Your task to perform on an android device: change timer sound Image 0: 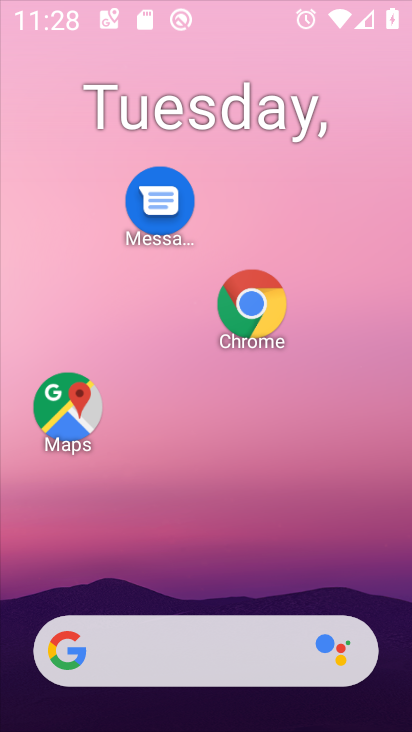
Step 0: drag from (309, 241) to (333, 197)
Your task to perform on an android device: change timer sound Image 1: 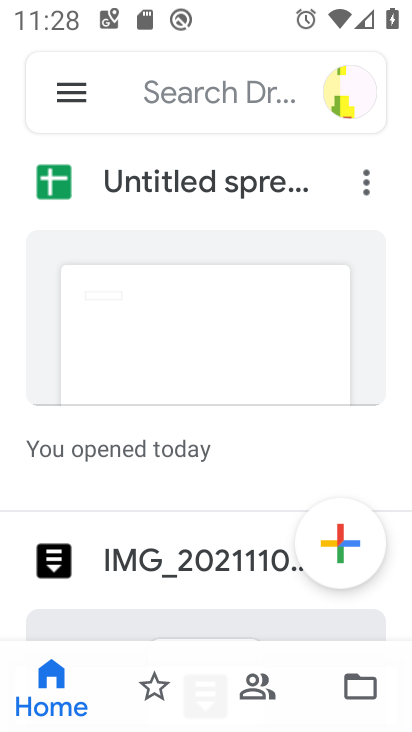
Step 1: press home button
Your task to perform on an android device: change timer sound Image 2: 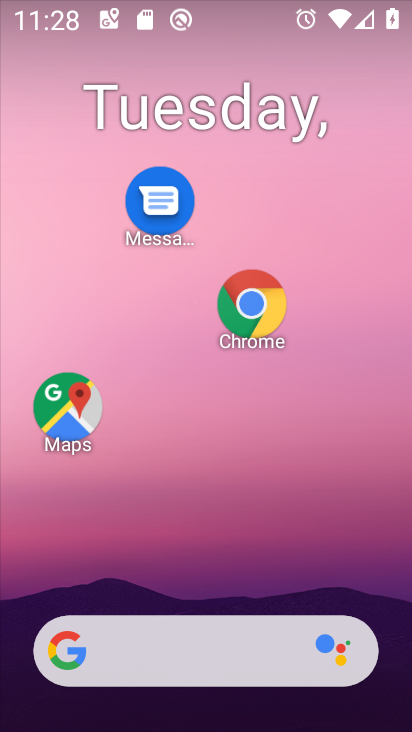
Step 2: drag from (261, 538) to (351, 191)
Your task to perform on an android device: change timer sound Image 3: 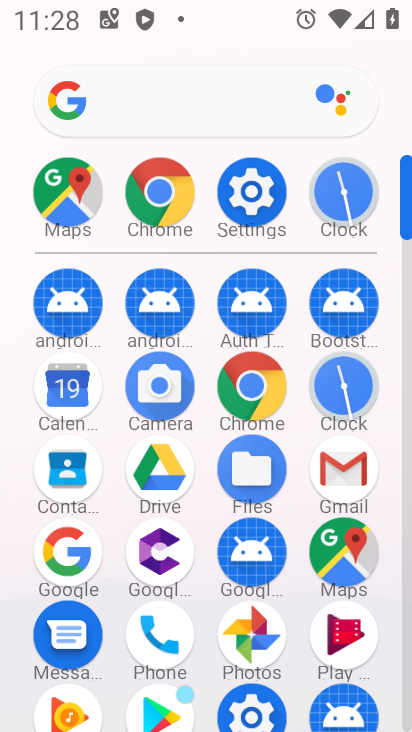
Step 3: click (344, 368)
Your task to perform on an android device: change timer sound Image 4: 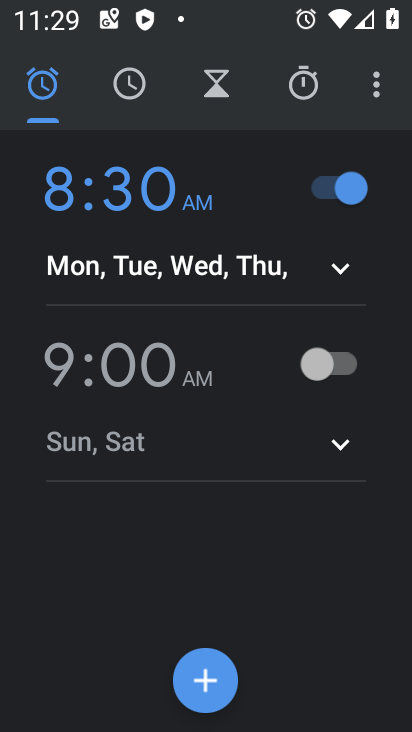
Step 4: click (385, 85)
Your task to perform on an android device: change timer sound Image 5: 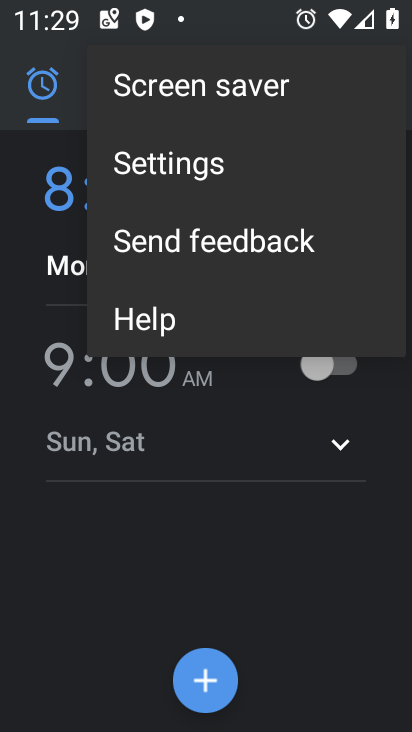
Step 5: click (259, 160)
Your task to perform on an android device: change timer sound Image 6: 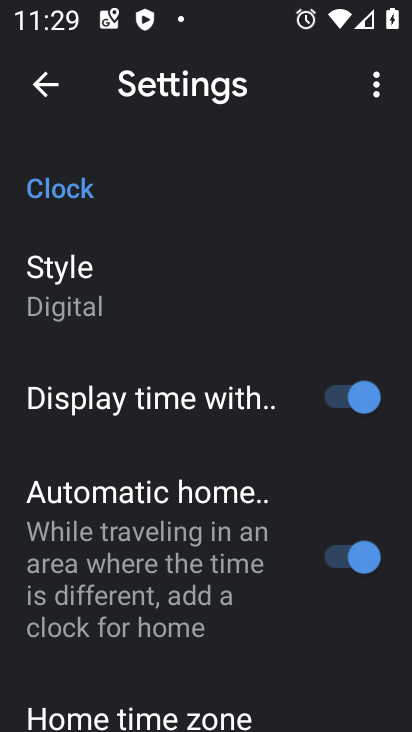
Step 6: drag from (171, 557) to (239, 127)
Your task to perform on an android device: change timer sound Image 7: 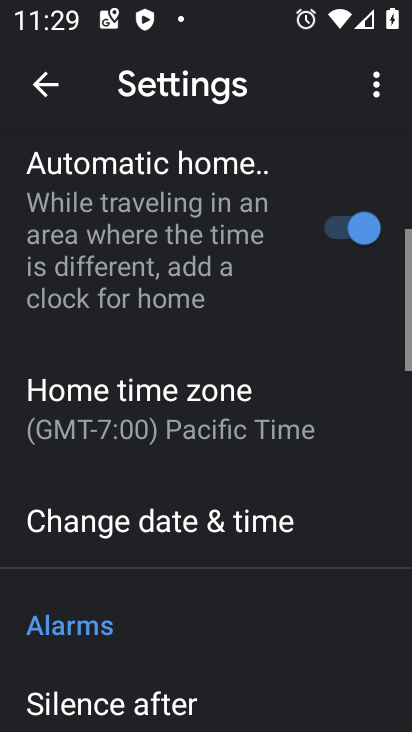
Step 7: drag from (148, 651) to (245, 182)
Your task to perform on an android device: change timer sound Image 8: 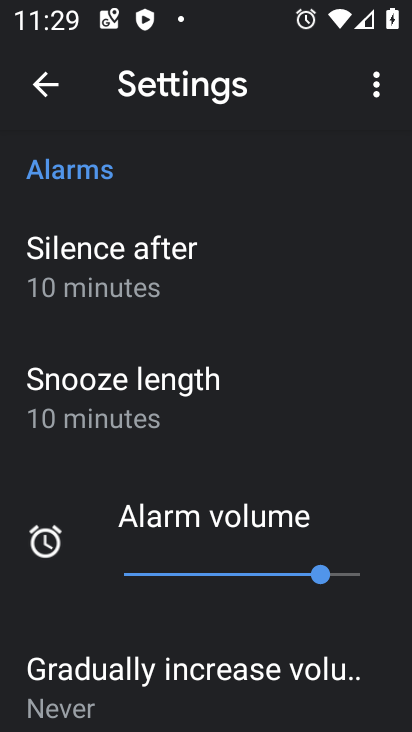
Step 8: drag from (92, 617) to (185, 189)
Your task to perform on an android device: change timer sound Image 9: 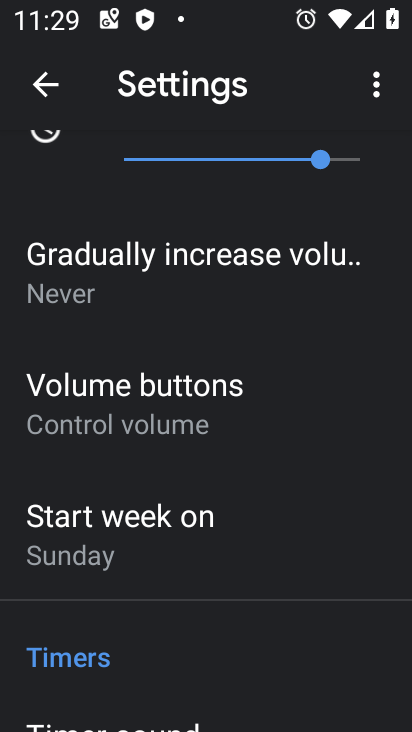
Step 9: drag from (127, 562) to (223, 288)
Your task to perform on an android device: change timer sound Image 10: 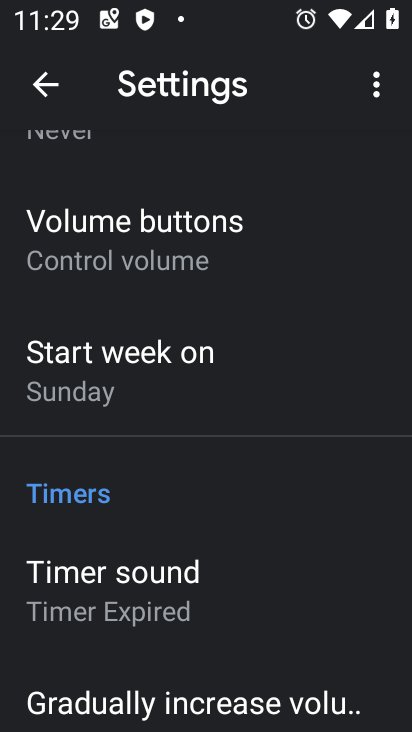
Step 10: click (177, 590)
Your task to perform on an android device: change timer sound Image 11: 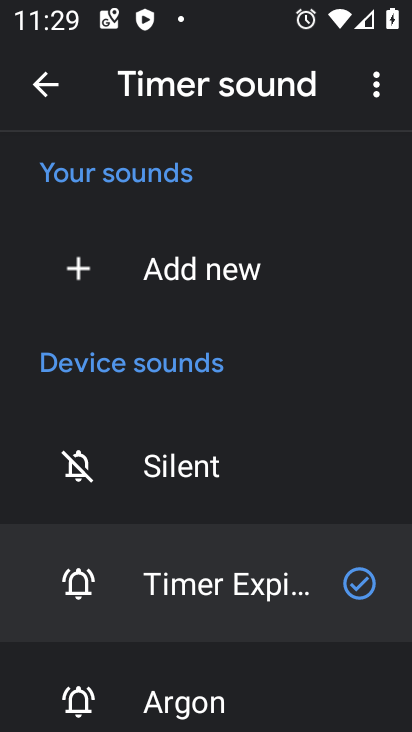
Step 11: drag from (180, 596) to (301, 208)
Your task to perform on an android device: change timer sound Image 12: 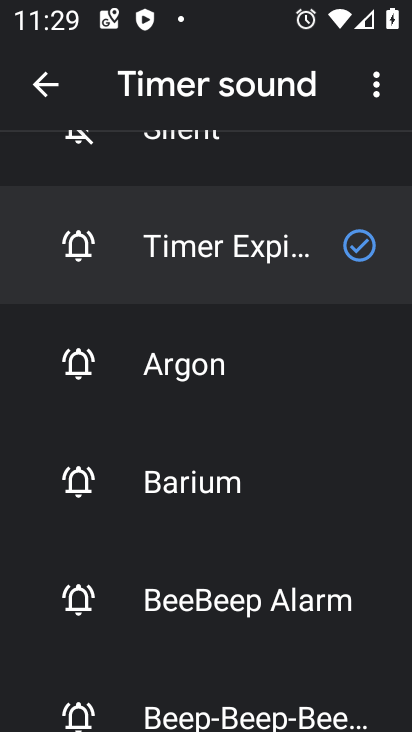
Step 12: click (185, 592)
Your task to perform on an android device: change timer sound Image 13: 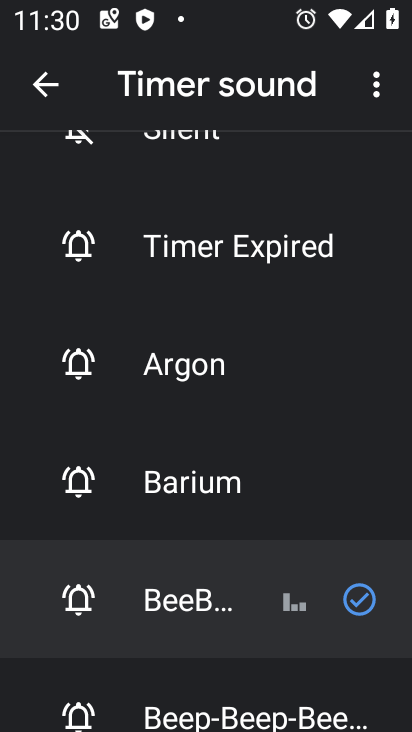
Step 13: task complete